Your task to perform on an android device: manage bookmarks in the chrome app Image 0: 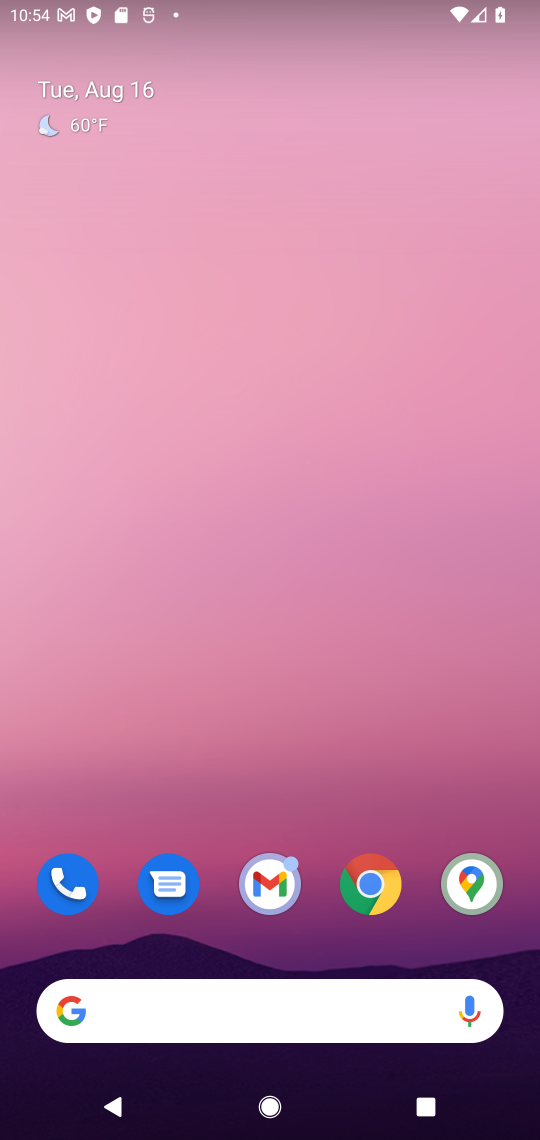
Step 0: click (373, 885)
Your task to perform on an android device: manage bookmarks in the chrome app Image 1: 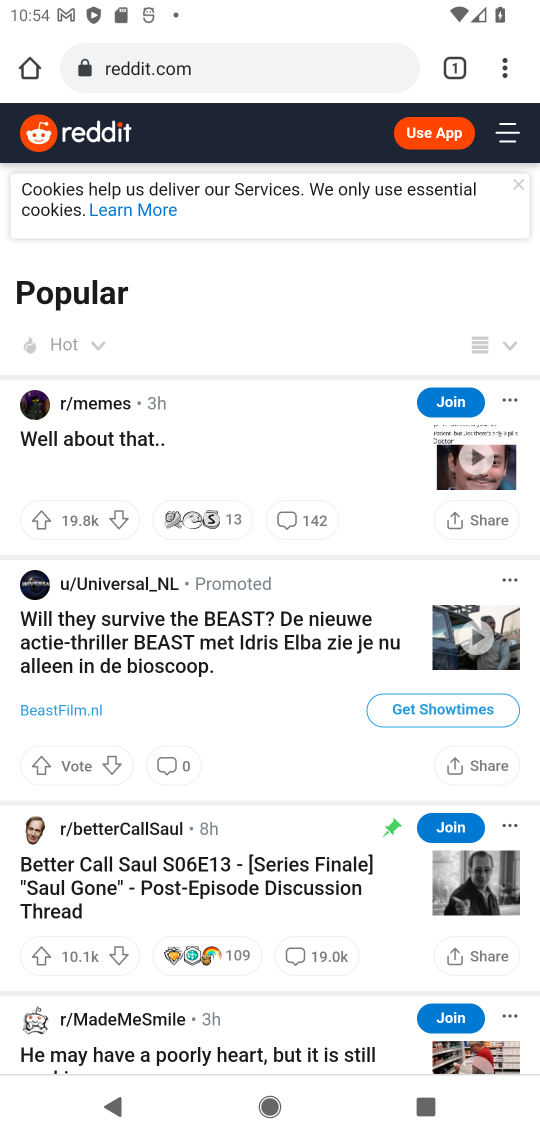
Step 1: click (507, 70)
Your task to perform on an android device: manage bookmarks in the chrome app Image 2: 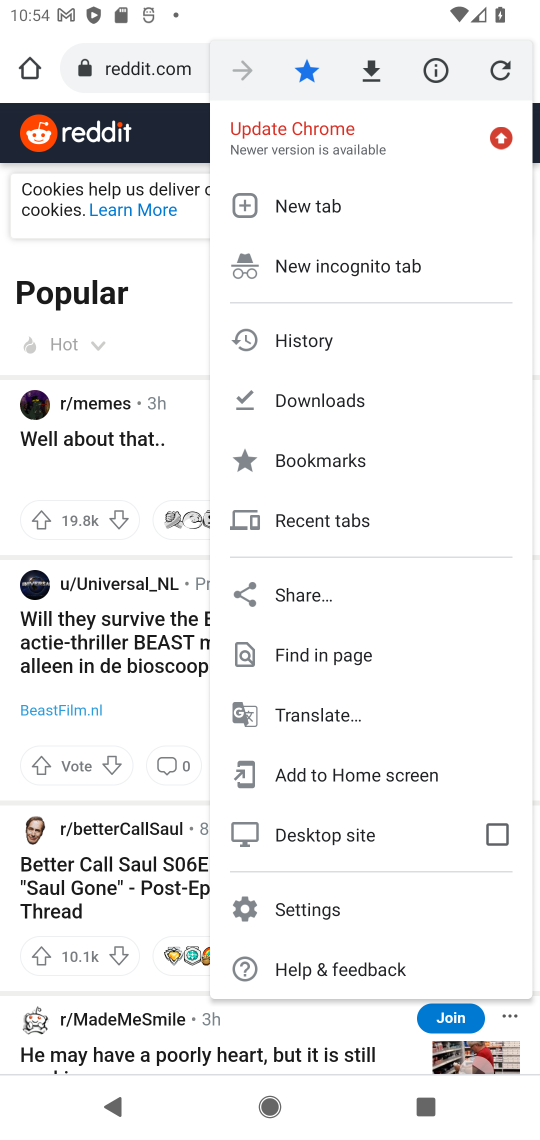
Step 2: click (317, 466)
Your task to perform on an android device: manage bookmarks in the chrome app Image 3: 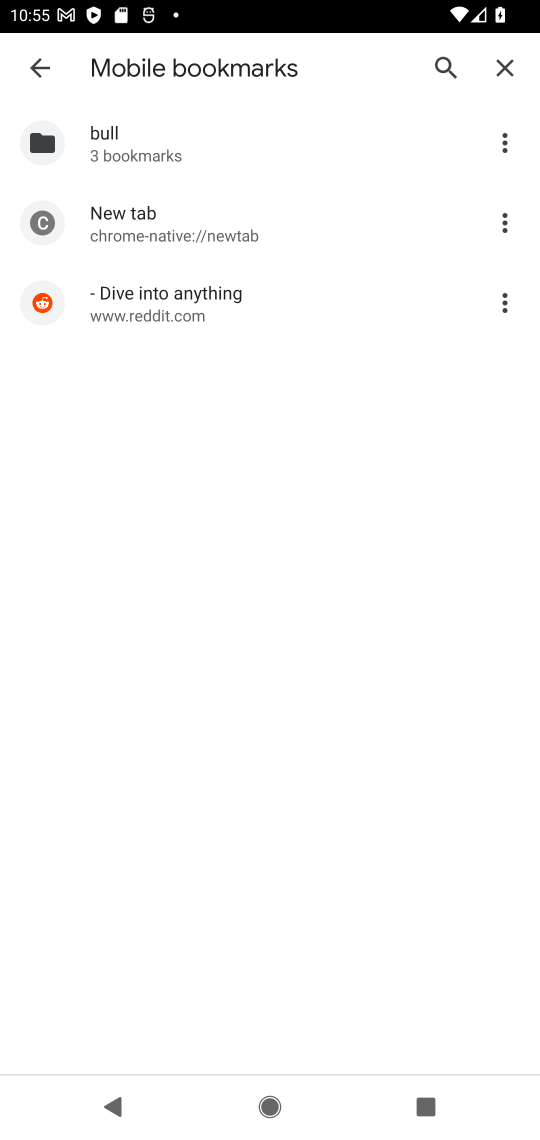
Step 3: click (506, 224)
Your task to perform on an android device: manage bookmarks in the chrome app Image 4: 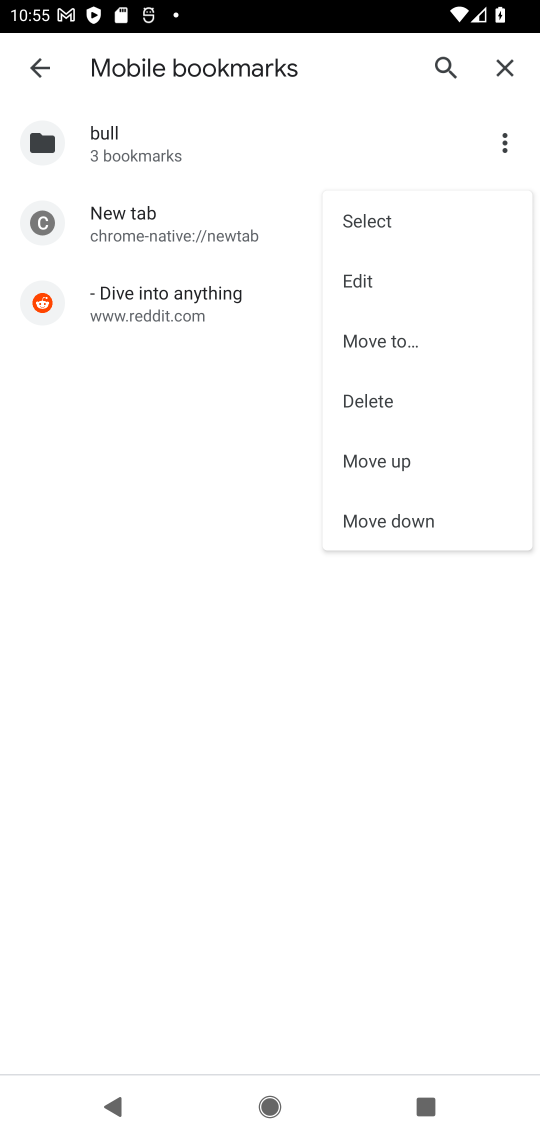
Step 4: click (359, 397)
Your task to perform on an android device: manage bookmarks in the chrome app Image 5: 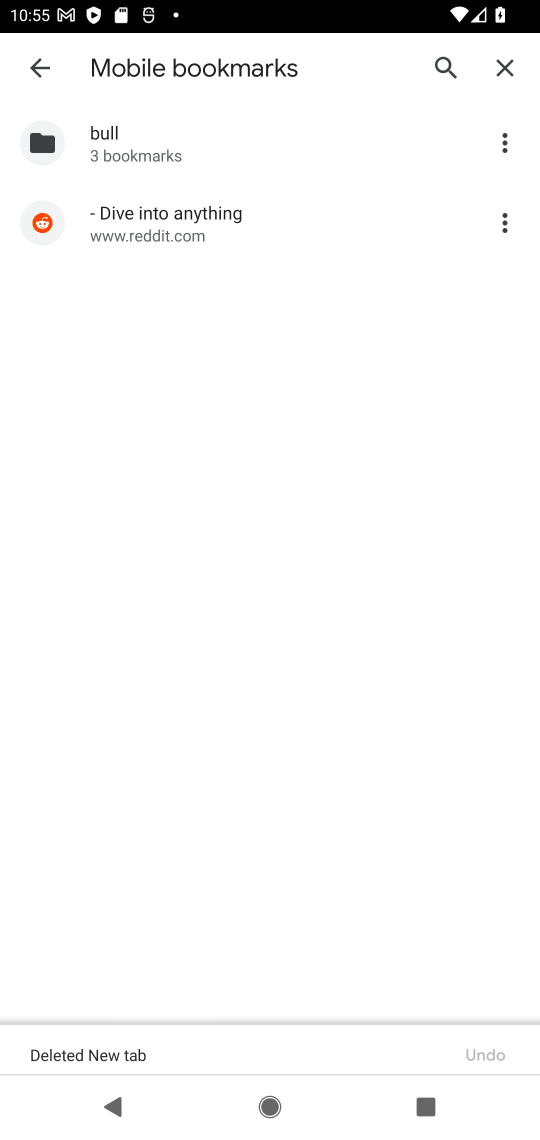
Step 5: task complete